Your task to perform on an android device: change notification settings in the gmail app Image 0: 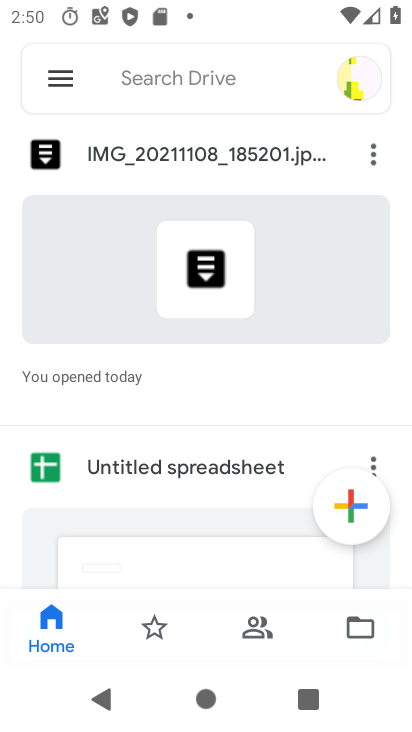
Step 0: press home button
Your task to perform on an android device: change notification settings in the gmail app Image 1: 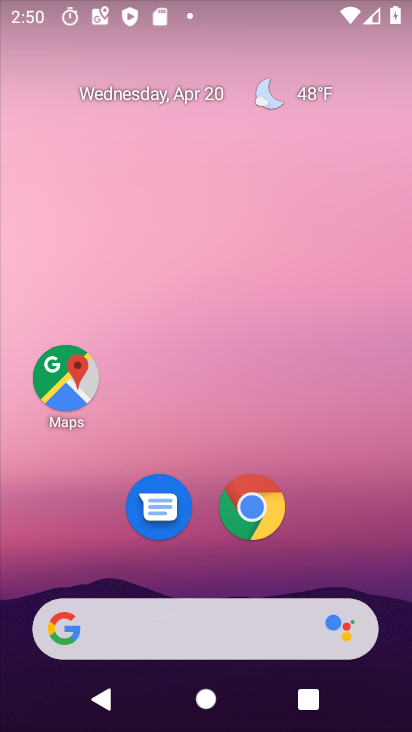
Step 1: drag from (173, 624) to (212, 24)
Your task to perform on an android device: change notification settings in the gmail app Image 2: 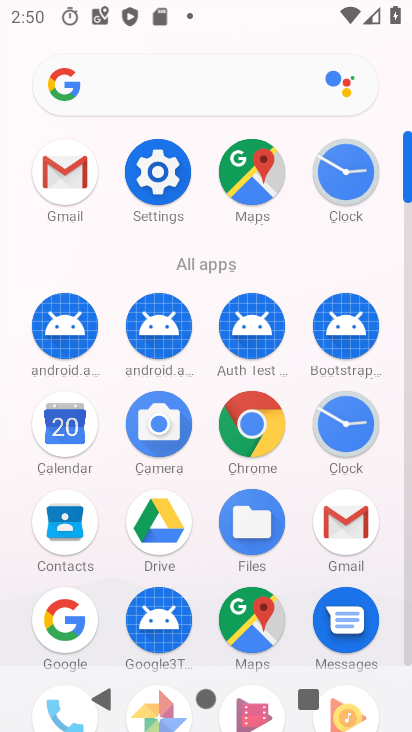
Step 2: click (62, 163)
Your task to perform on an android device: change notification settings in the gmail app Image 3: 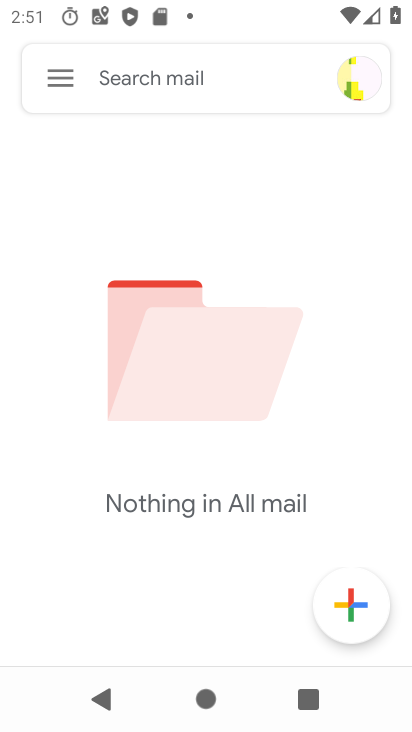
Step 3: click (58, 89)
Your task to perform on an android device: change notification settings in the gmail app Image 4: 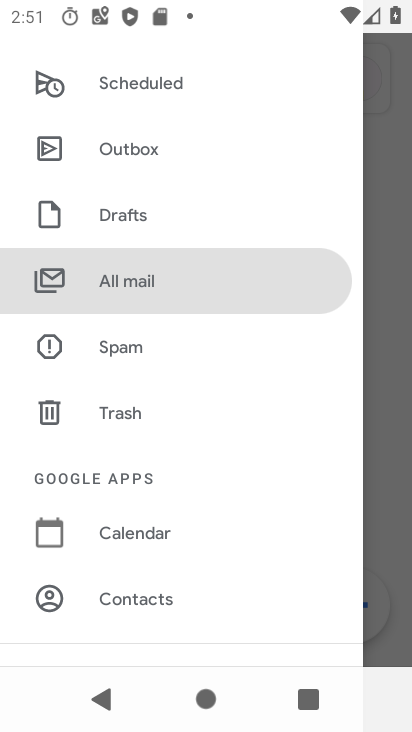
Step 4: drag from (145, 567) to (204, 94)
Your task to perform on an android device: change notification settings in the gmail app Image 5: 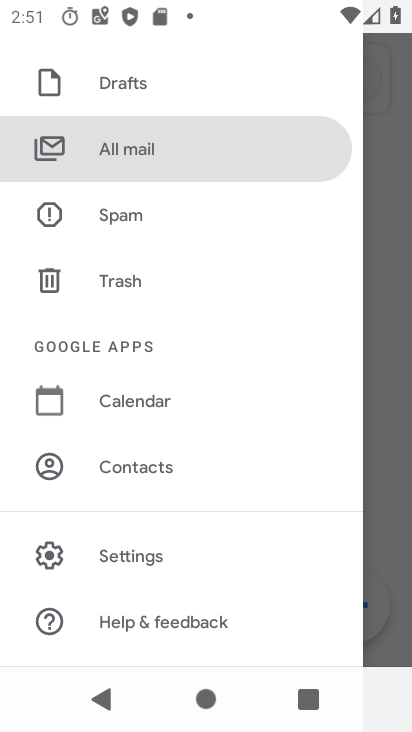
Step 5: click (129, 546)
Your task to perform on an android device: change notification settings in the gmail app Image 6: 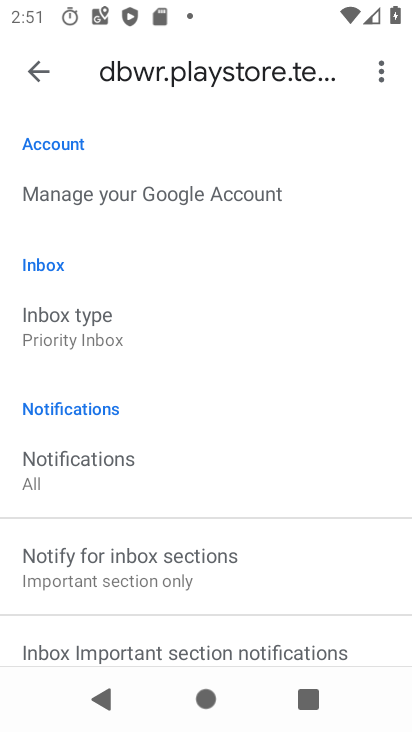
Step 6: drag from (120, 476) to (155, 166)
Your task to perform on an android device: change notification settings in the gmail app Image 7: 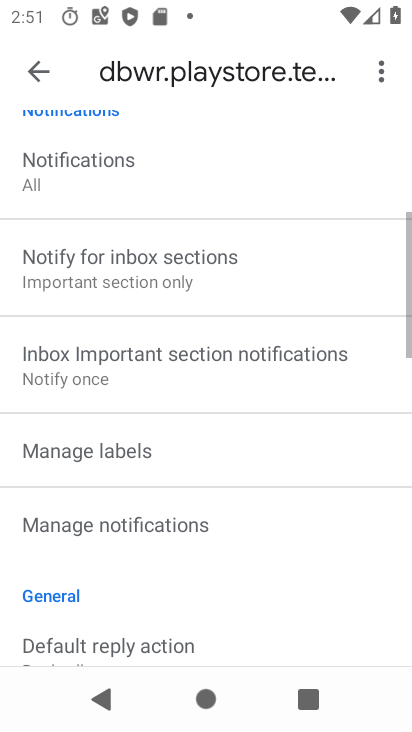
Step 7: click (101, 534)
Your task to perform on an android device: change notification settings in the gmail app Image 8: 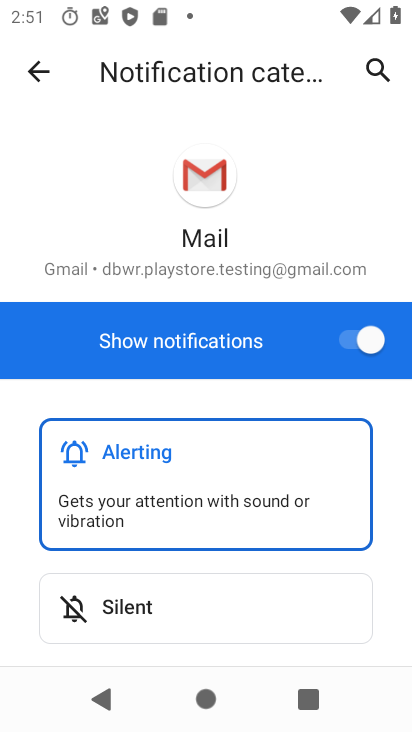
Step 8: click (369, 339)
Your task to perform on an android device: change notification settings in the gmail app Image 9: 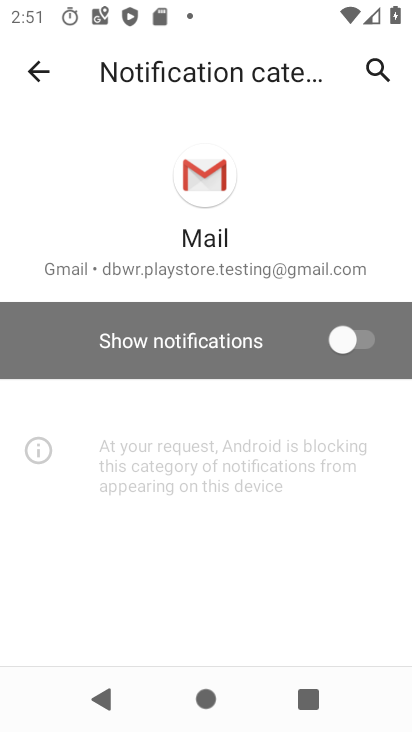
Step 9: task complete